Your task to perform on an android device: Go to Amazon Image 0: 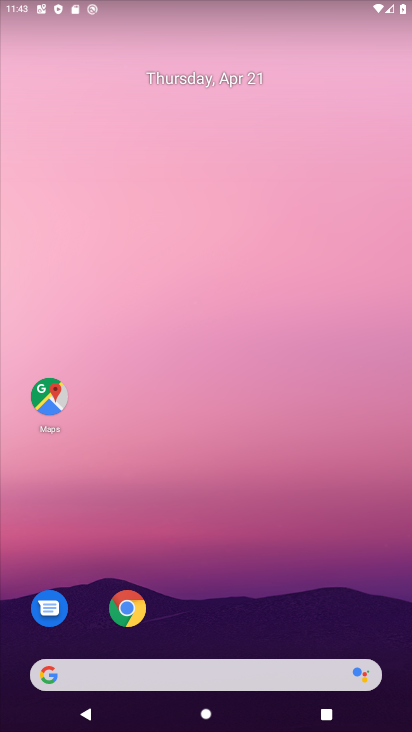
Step 0: drag from (213, 503) to (186, 150)
Your task to perform on an android device: Go to Amazon Image 1: 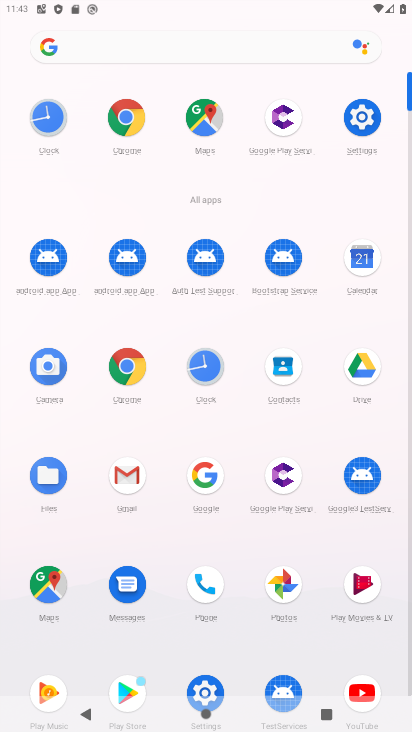
Step 1: click (126, 105)
Your task to perform on an android device: Go to Amazon Image 2: 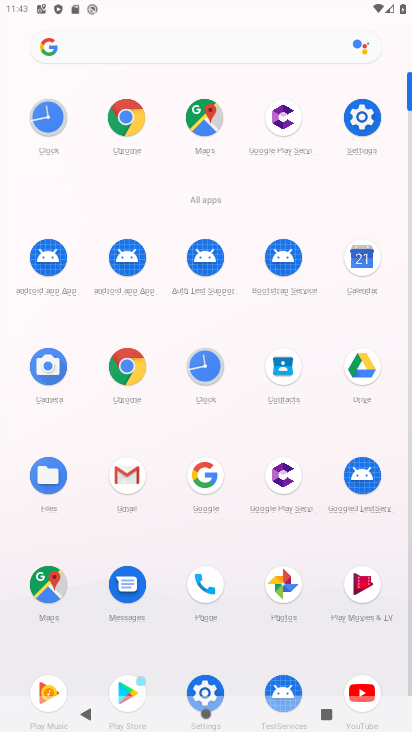
Step 2: click (129, 103)
Your task to perform on an android device: Go to Amazon Image 3: 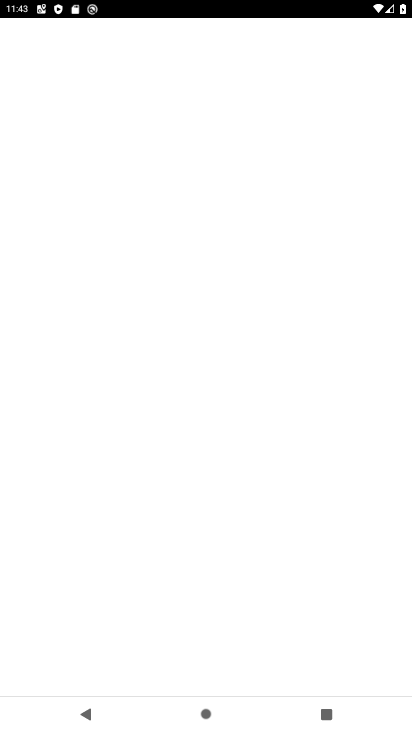
Step 3: click (129, 103)
Your task to perform on an android device: Go to Amazon Image 4: 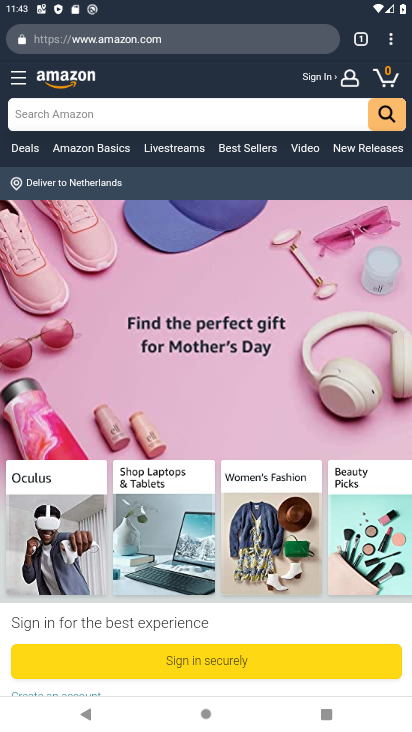
Step 4: task complete